Your task to perform on an android device: empty trash in the gmail app Image 0: 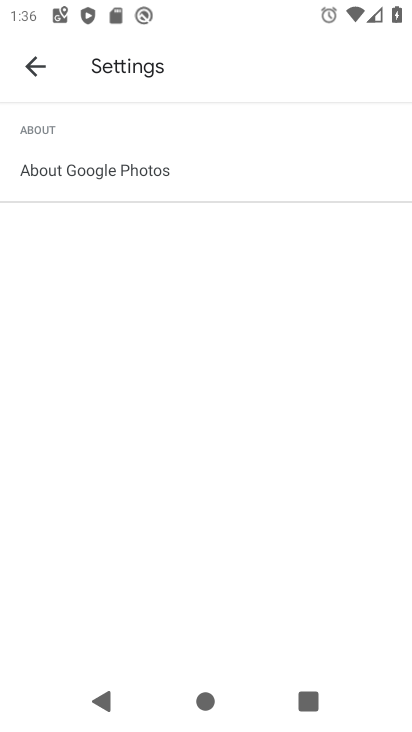
Step 0: press home button
Your task to perform on an android device: empty trash in the gmail app Image 1: 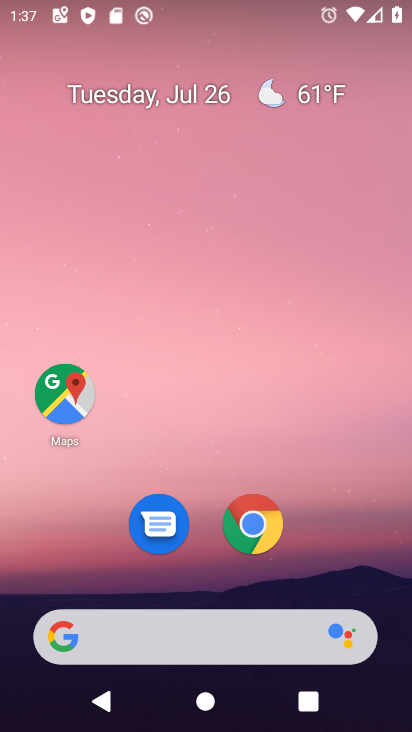
Step 1: drag from (218, 624) to (277, 77)
Your task to perform on an android device: empty trash in the gmail app Image 2: 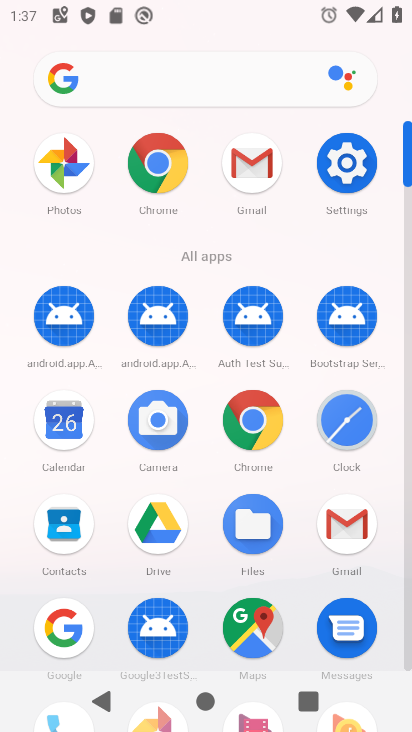
Step 2: click (261, 177)
Your task to perform on an android device: empty trash in the gmail app Image 3: 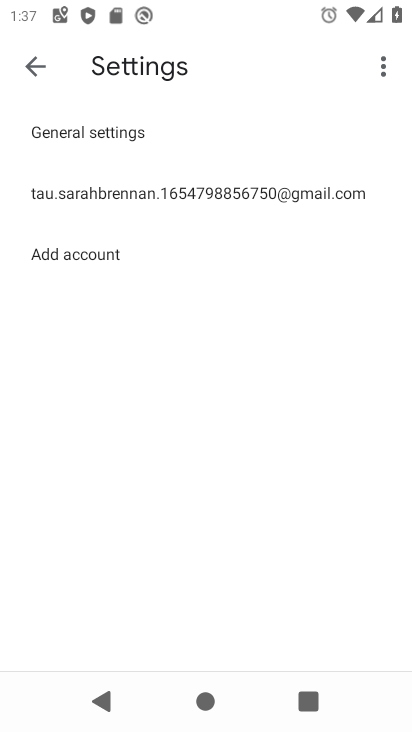
Step 3: click (37, 72)
Your task to perform on an android device: empty trash in the gmail app Image 4: 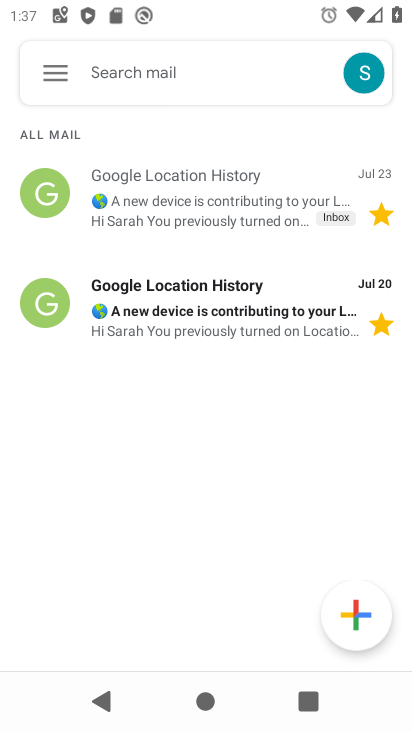
Step 4: click (48, 70)
Your task to perform on an android device: empty trash in the gmail app Image 5: 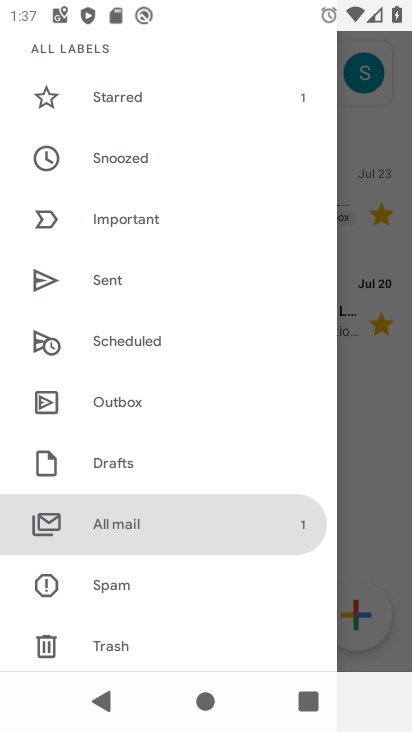
Step 5: drag from (230, 154) to (225, 575)
Your task to perform on an android device: empty trash in the gmail app Image 6: 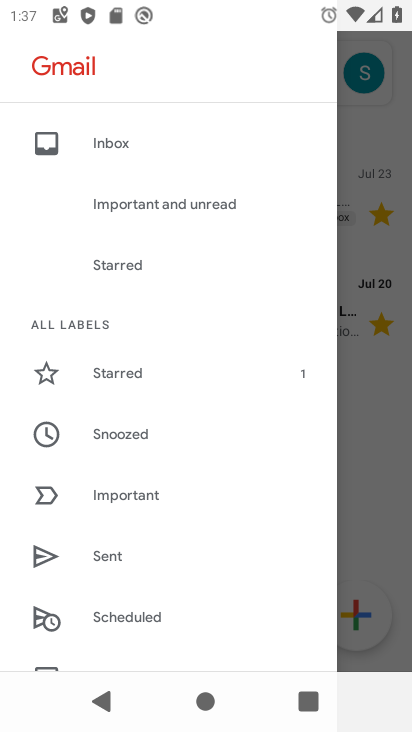
Step 6: drag from (198, 547) to (285, 136)
Your task to perform on an android device: empty trash in the gmail app Image 7: 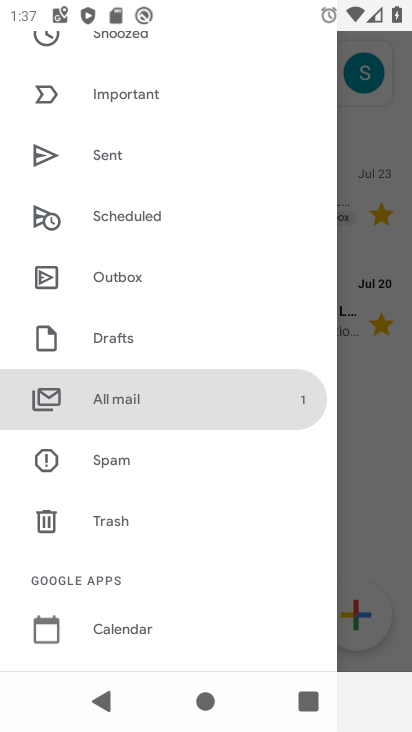
Step 7: click (108, 520)
Your task to perform on an android device: empty trash in the gmail app Image 8: 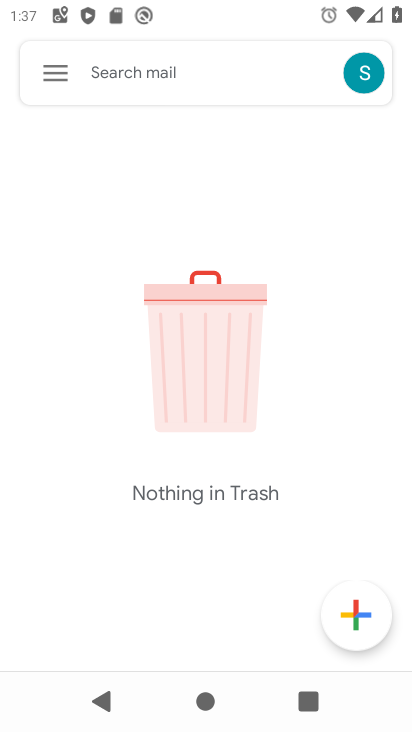
Step 8: task complete